Your task to perform on an android device: turn off location history Image 0: 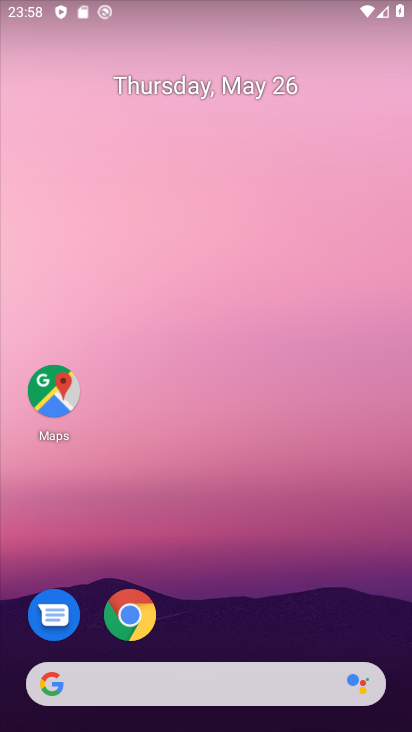
Step 0: drag from (351, 612) to (346, 236)
Your task to perform on an android device: turn off location history Image 1: 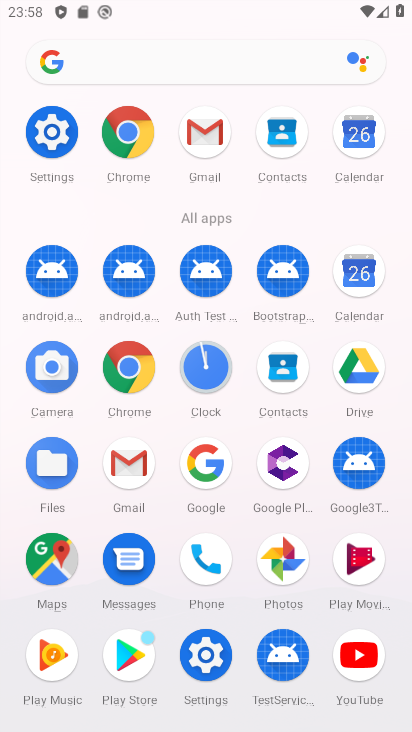
Step 1: click (54, 146)
Your task to perform on an android device: turn off location history Image 2: 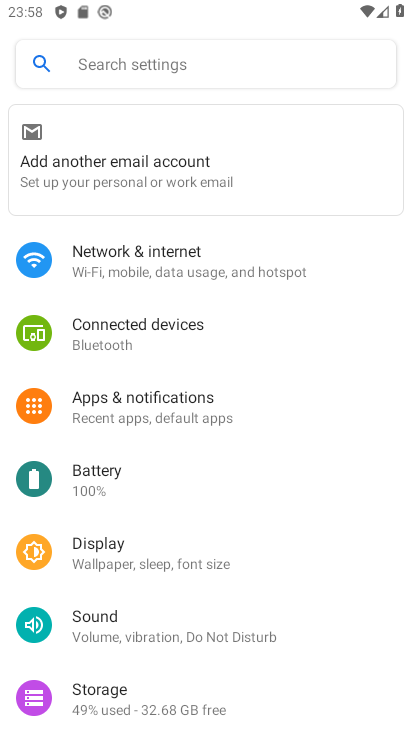
Step 2: drag from (325, 611) to (316, 479)
Your task to perform on an android device: turn off location history Image 3: 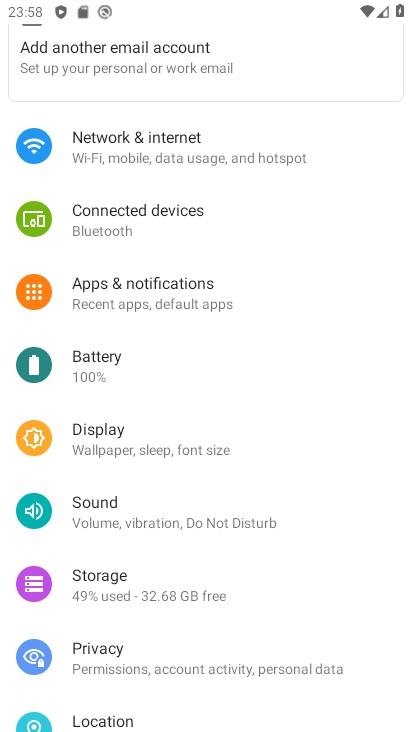
Step 3: drag from (328, 574) to (320, 448)
Your task to perform on an android device: turn off location history Image 4: 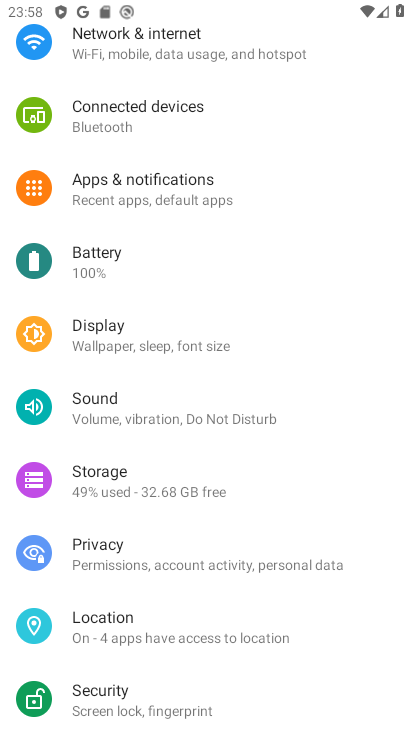
Step 4: drag from (355, 605) to (346, 448)
Your task to perform on an android device: turn off location history Image 5: 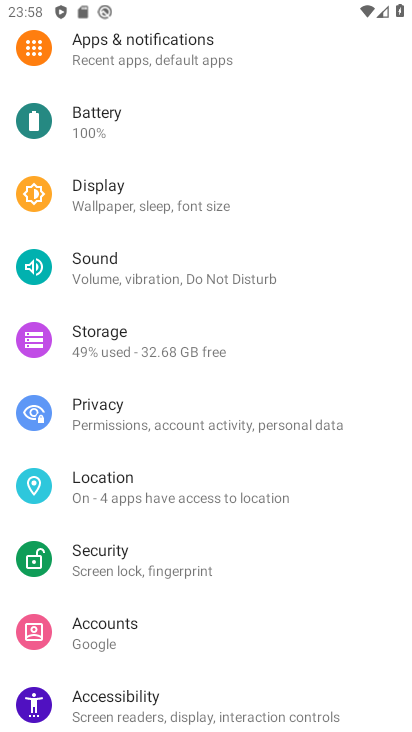
Step 5: drag from (355, 591) to (348, 492)
Your task to perform on an android device: turn off location history Image 6: 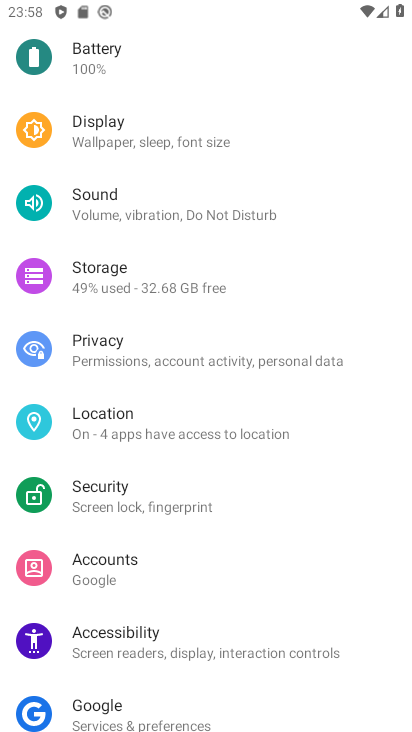
Step 6: click (265, 431)
Your task to perform on an android device: turn off location history Image 7: 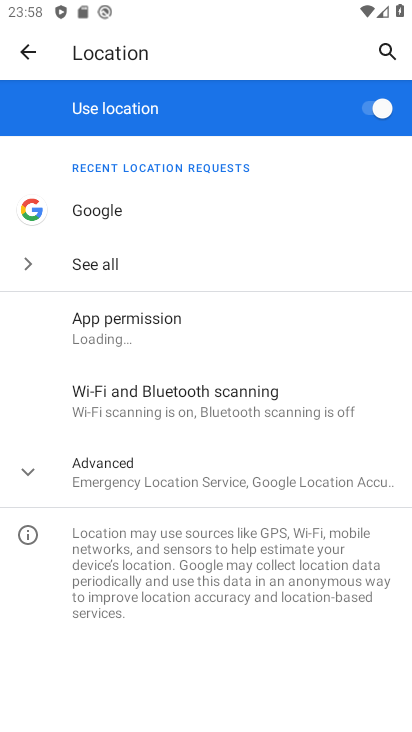
Step 7: click (237, 476)
Your task to perform on an android device: turn off location history Image 8: 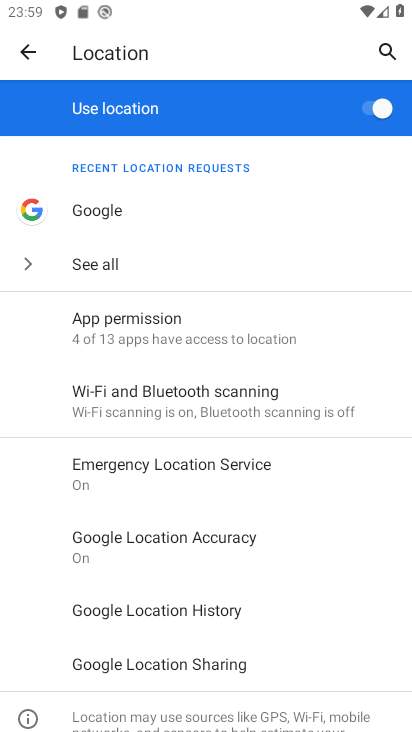
Step 8: click (227, 616)
Your task to perform on an android device: turn off location history Image 9: 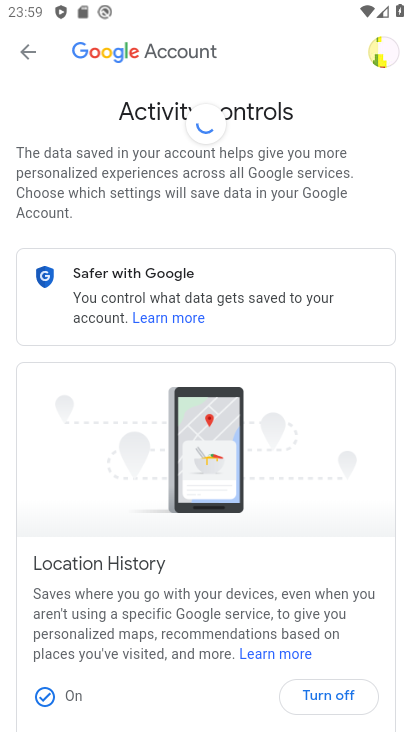
Step 9: click (341, 691)
Your task to perform on an android device: turn off location history Image 10: 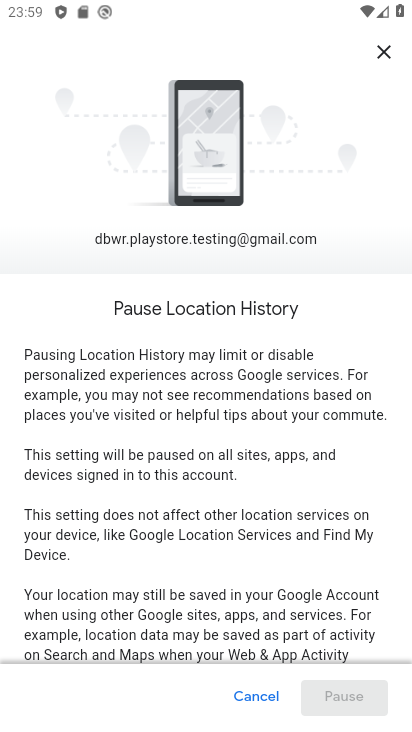
Step 10: drag from (289, 581) to (292, 466)
Your task to perform on an android device: turn off location history Image 11: 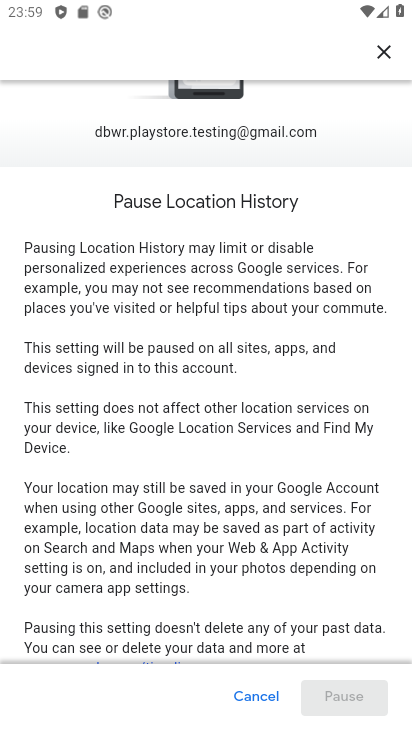
Step 11: drag from (293, 577) to (300, 417)
Your task to perform on an android device: turn off location history Image 12: 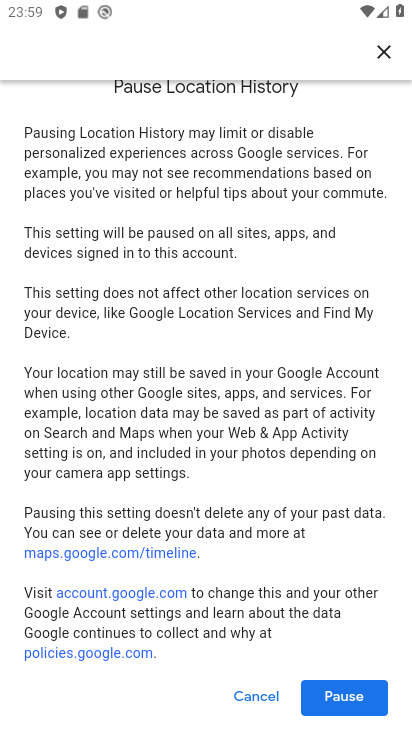
Step 12: drag from (311, 517) to (309, 430)
Your task to perform on an android device: turn off location history Image 13: 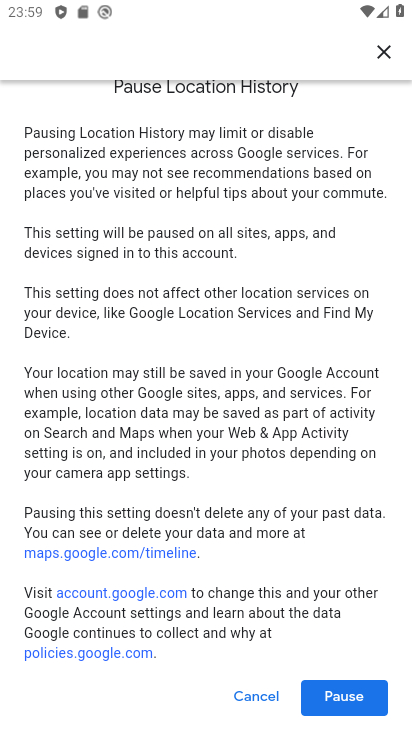
Step 13: click (360, 702)
Your task to perform on an android device: turn off location history Image 14: 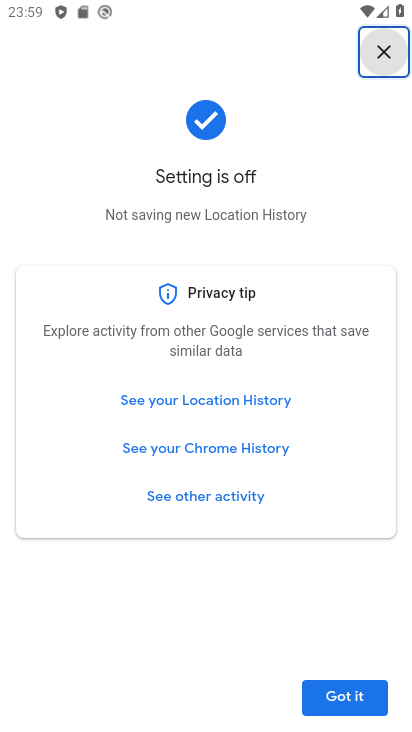
Step 14: task complete